Your task to perform on an android device: turn on translation in the chrome app Image 0: 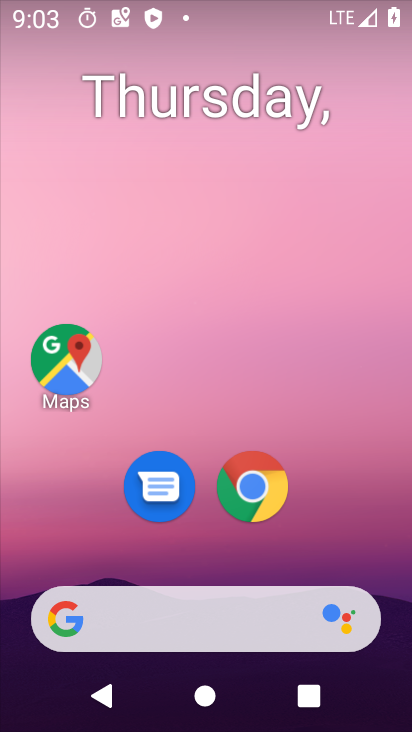
Step 0: drag from (206, 653) to (253, 86)
Your task to perform on an android device: turn on translation in the chrome app Image 1: 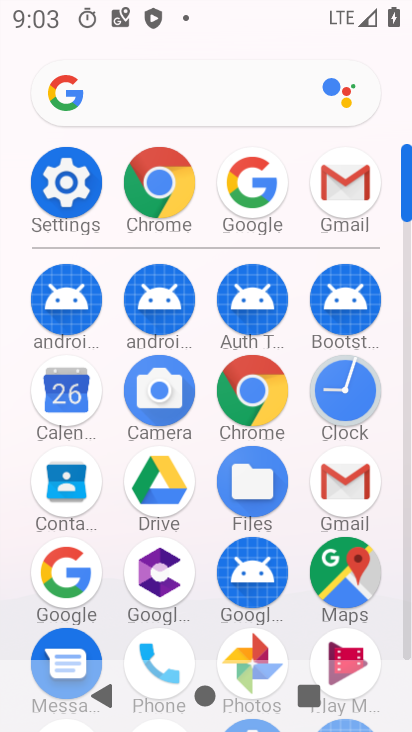
Step 1: click (240, 394)
Your task to perform on an android device: turn on translation in the chrome app Image 2: 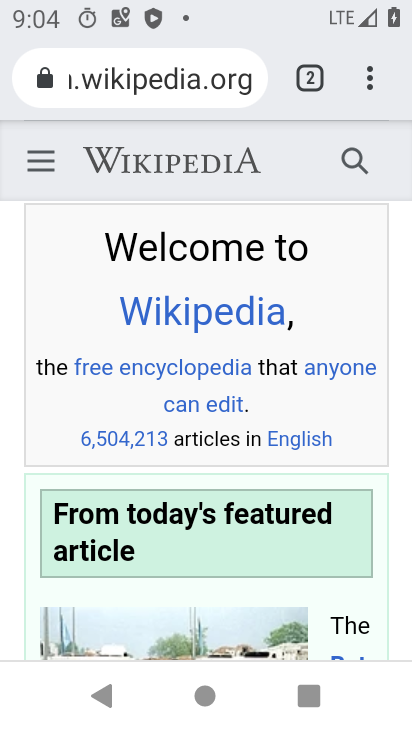
Step 2: click (367, 72)
Your task to perform on an android device: turn on translation in the chrome app Image 3: 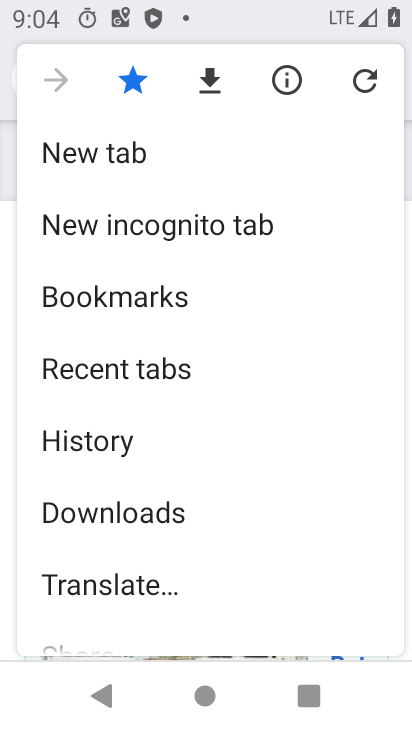
Step 3: drag from (166, 431) to (176, 317)
Your task to perform on an android device: turn on translation in the chrome app Image 4: 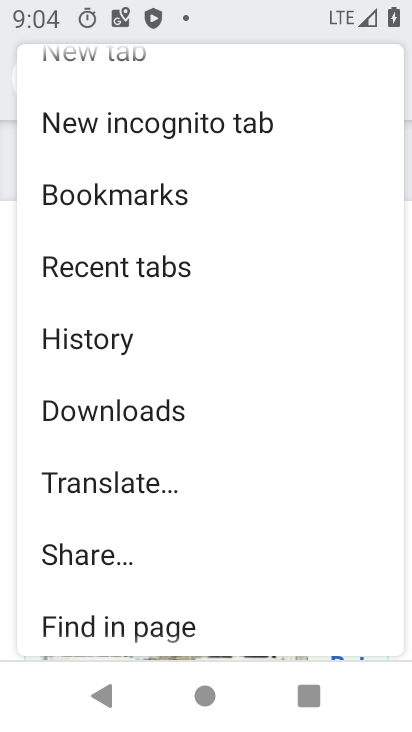
Step 4: click (146, 477)
Your task to perform on an android device: turn on translation in the chrome app Image 5: 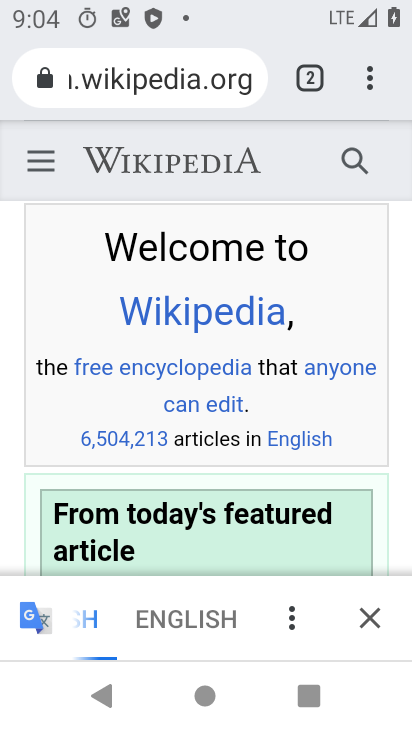
Step 5: click (286, 632)
Your task to perform on an android device: turn on translation in the chrome app Image 6: 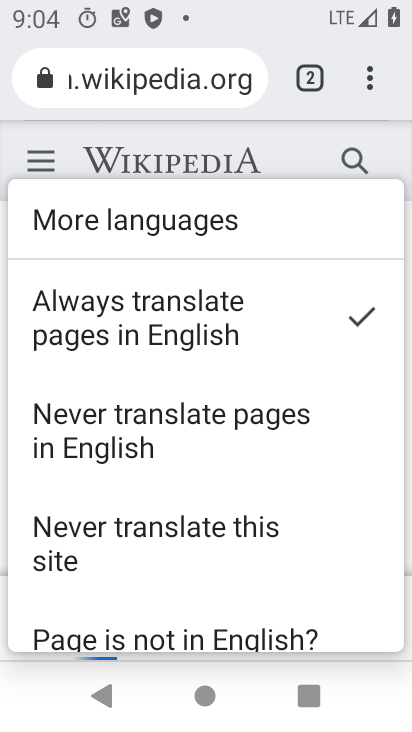
Step 6: task complete